Your task to perform on an android device: see sites visited before in the chrome app Image 0: 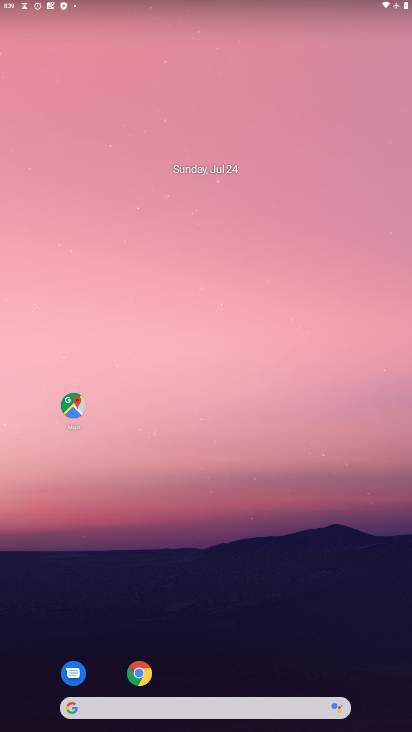
Step 0: drag from (172, 680) to (222, 98)
Your task to perform on an android device: see sites visited before in the chrome app Image 1: 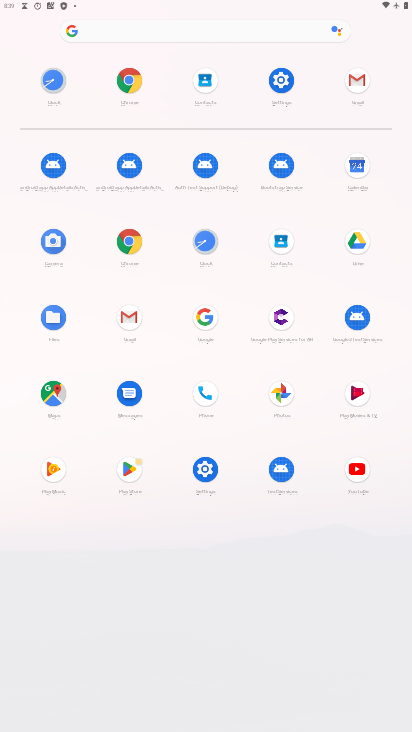
Step 1: click (116, 227)
Your task to perform on an android device: see sites visited before in the chrome app Image 2: 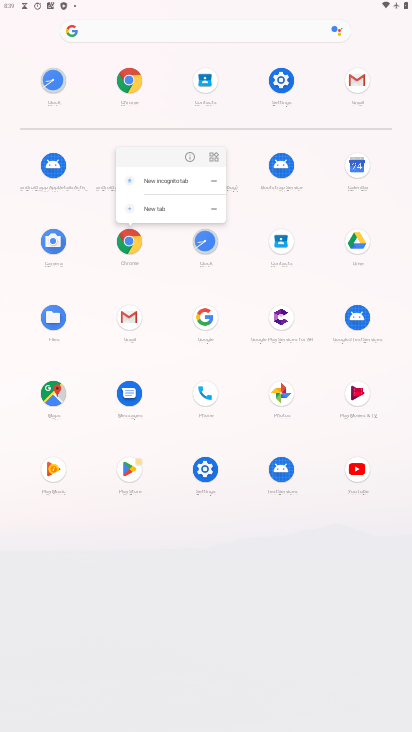
Step 2: click (185, 154)
Your task to perform on an android device: see sites visited before in the chrome app Image 3: 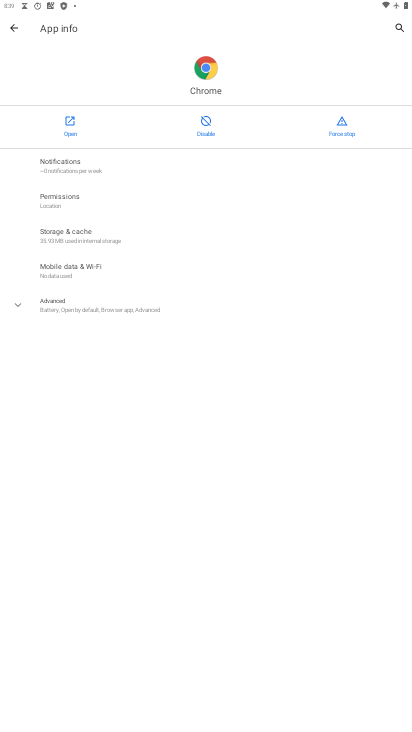
Step 3: click (54, 127)
Your task to perform on an android device: see sites visited before in the chrome app Image 4: 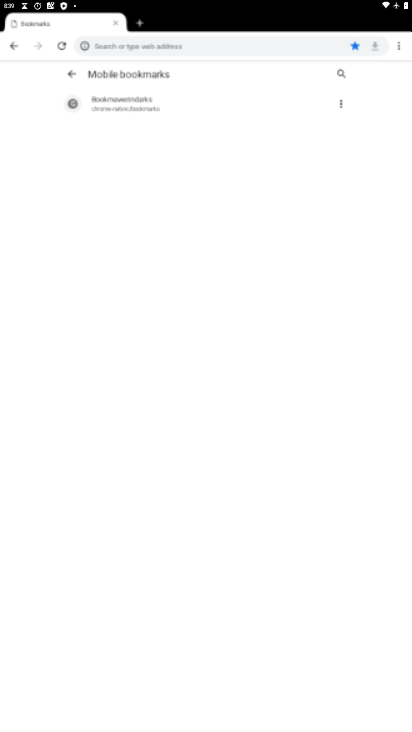
Step 4: task complete